Your task to perform on an android device: toggle priority inbox in the gmail app Image 0: 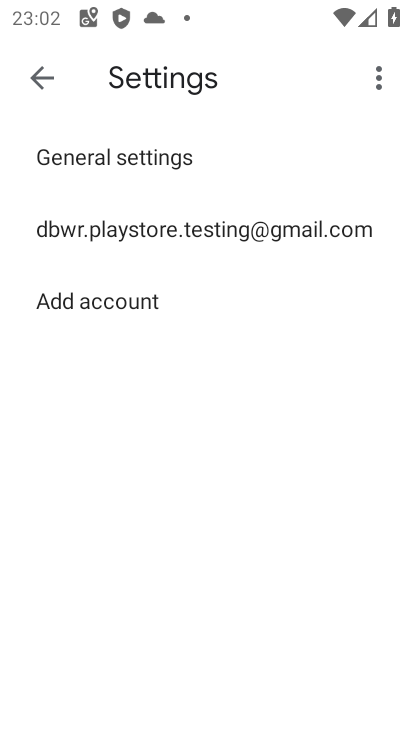
Step 0: press home button
Your task to perform on an android device: toggle priority inbox in the gmail app Image 1: 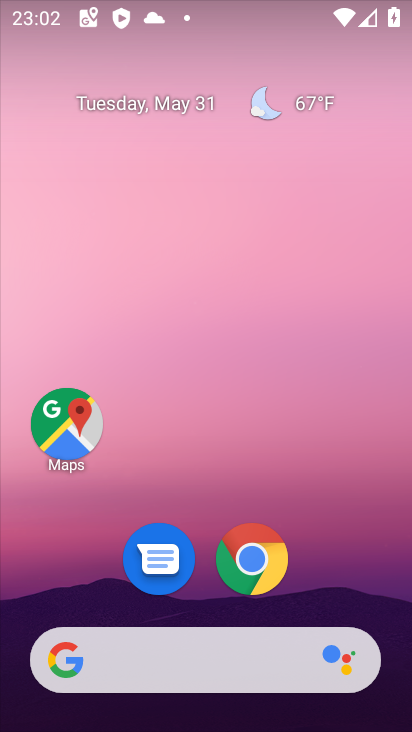
Step 1: drag from (331, 581) to (334, 83)
Your task to perform on an android device: toggle priority inbox in the gmail app Image 2: 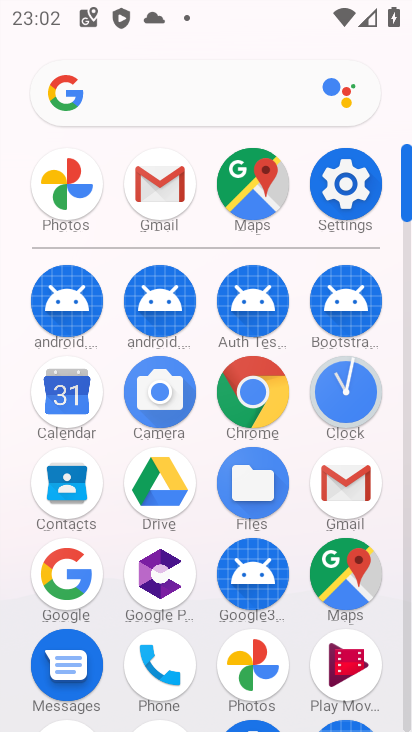
Step 2: click (159, 181)
Your task to perform on an android device: toggle priority inbox in the gmail app Image 3: 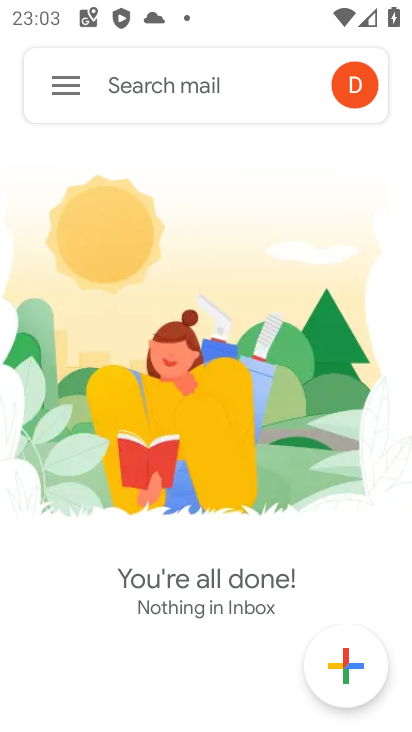
Step 3: click (57, 91)
Your task to perform on an android device: toggle priority inbox in the gmail app Image 4: 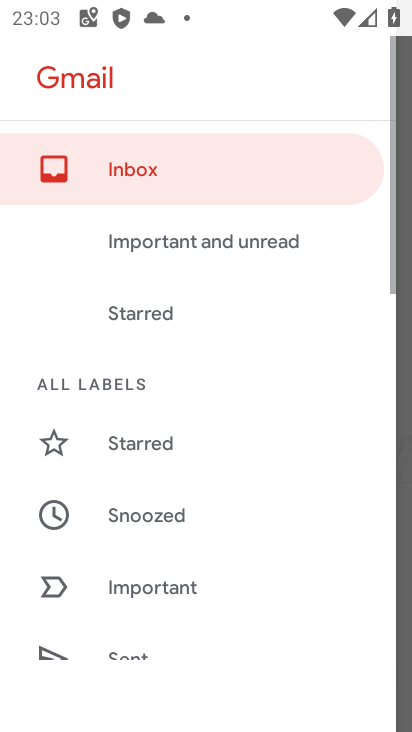
Step 4: drag from (182, 627) to (233, 158)
Your task to perform on an android device: toggle priority inbox in the gmail app Image 5: 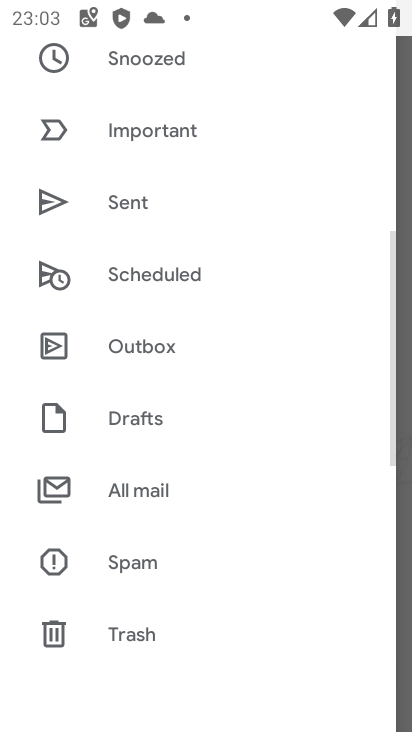
Step 5: drag from (167, 624) to (195, 209)
Your task to perform on an android device: toggle priority inbox in the gmail app Image 6: 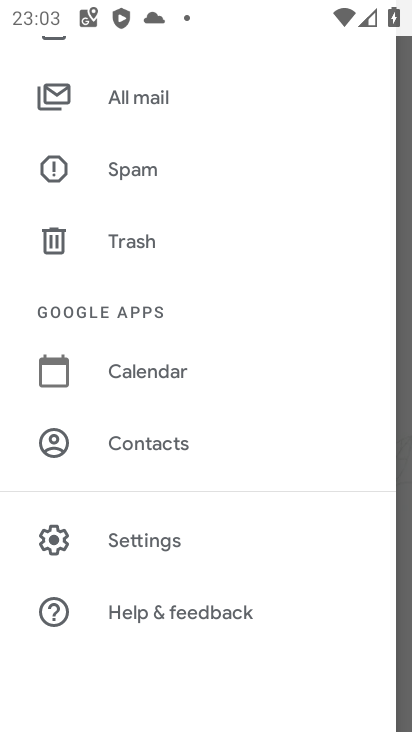
Step 6: click (137, 542)
Your task to perform on an android device: toggle priority inbox in the gmail app Image 7: 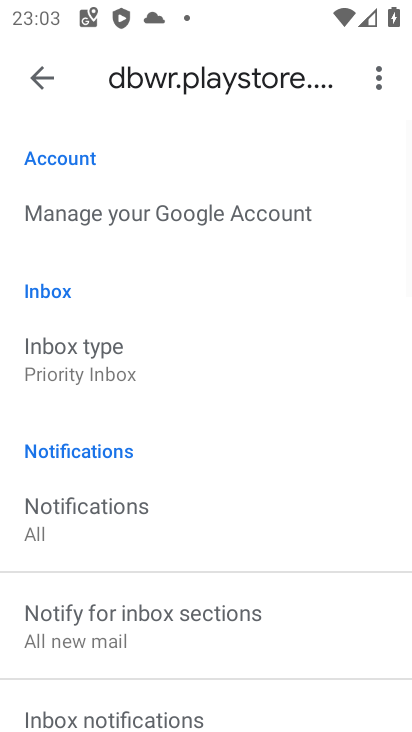
Step 7: drag from (164, 612) to (166, 520)
Your task to perform on an android device: toggle priority inbox in the gmail app Image 8: 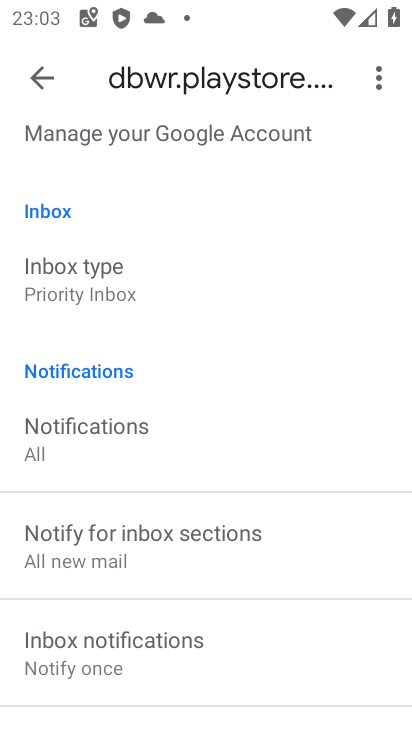
Step 8: click (123, 273)
Your task to perform on an android device: toggle priority inbox in the gmail app Image 9: 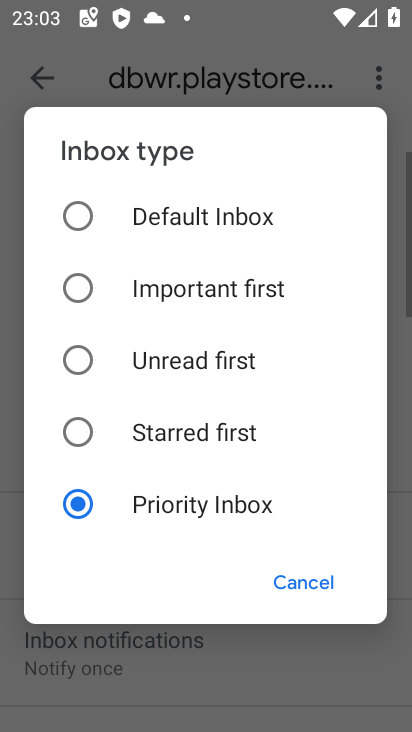
Step 9: click (95, 226)
Your task to perform on an android device: toggle priority inbox in the gmail app Image 10: 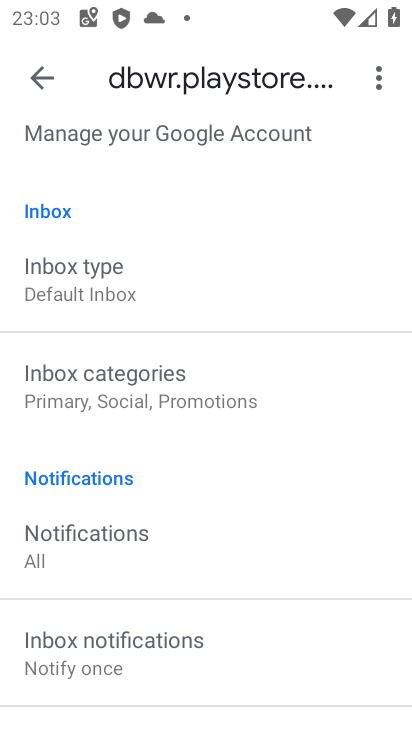
Step 10: task complete